Your task to perform on an android device: Go to network settings Image 0: 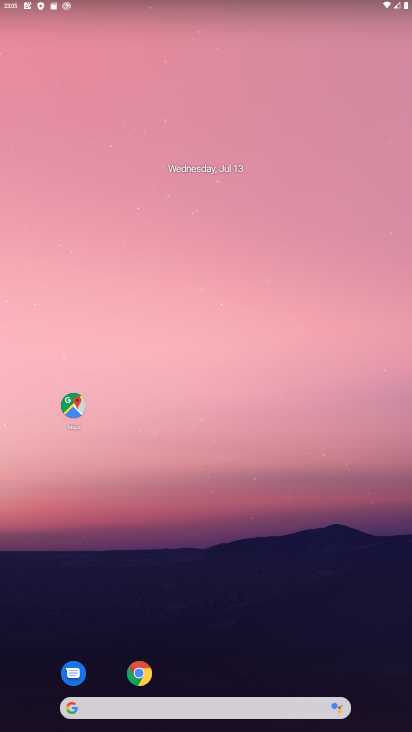
Step 0: drag from (229, 666) to (216, 114)
Your task to perform on an android device: Go to network settings Image 1: 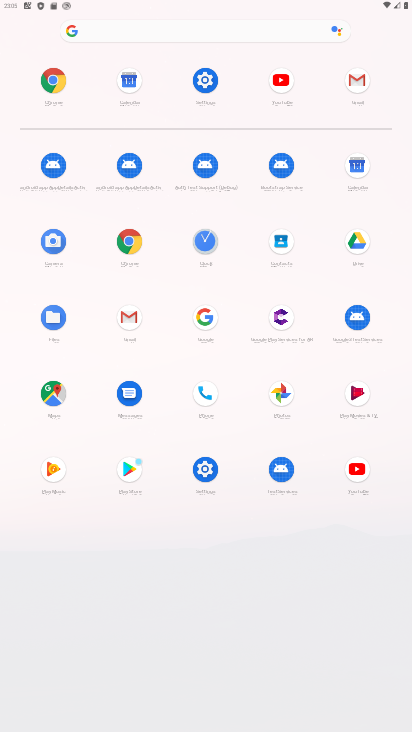
Step 1: click (208, 76)
Your task to perform on an android device: Go to network settings Image 2: 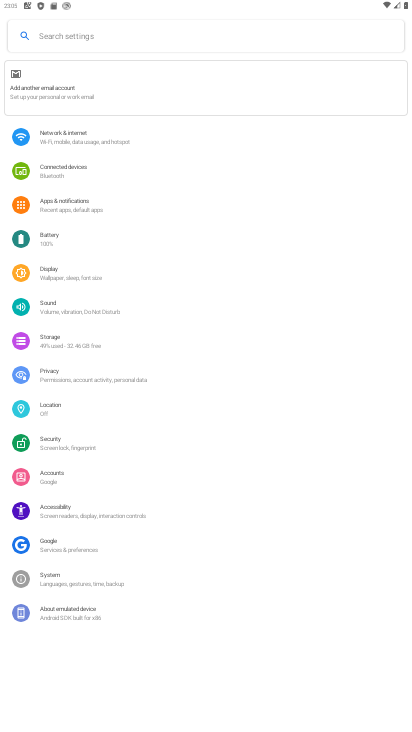
Step 2: click (84, 140)
Your task to perform on an android device: Go to network settings Image 3: 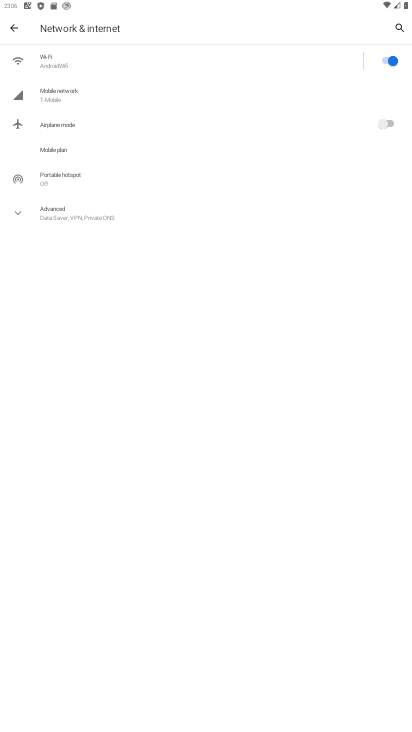
Step 3: task complete